Your task to perform on an android device: toggle data saver in the chrome app Image 0: 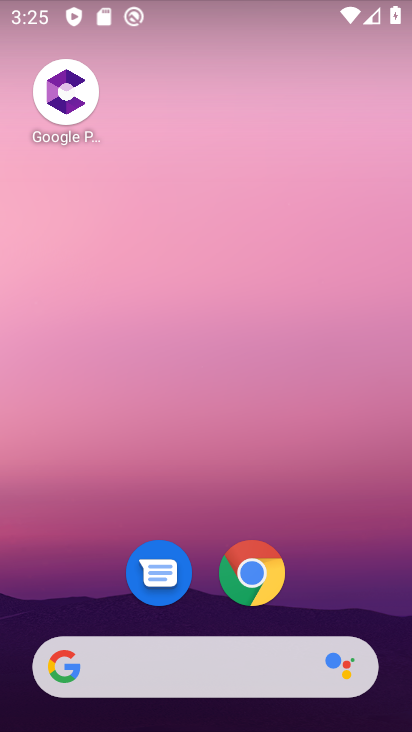
Step 0: drag from (87, 626) to (242, 148)
Your task to perform on an android device: toggle data saver in the chrome app Image 1: 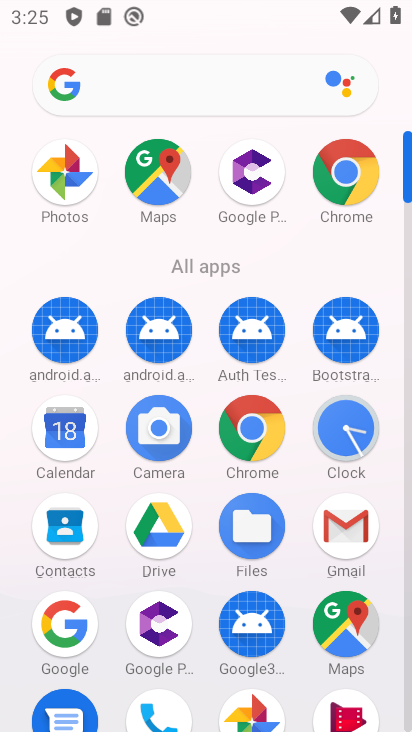
Step 1: click (254, 432)
Your task to perform on an android device: toggle data saver in the chrome app Image 2: 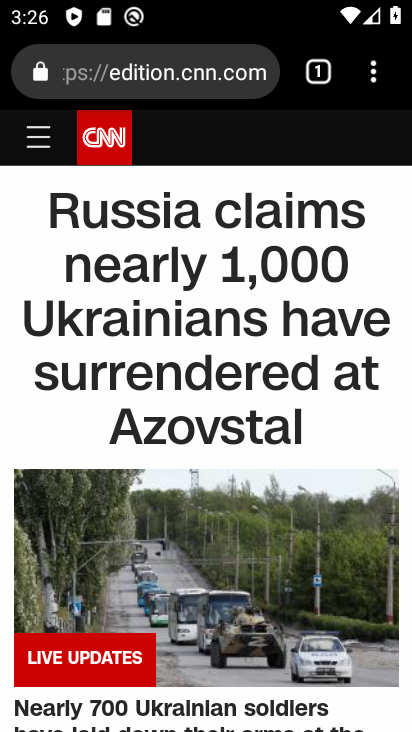
Step 2: drag from (386, 79) to (263, 585)
Your task to perform on an android device: toggle data saver in the chrome app Image 3: 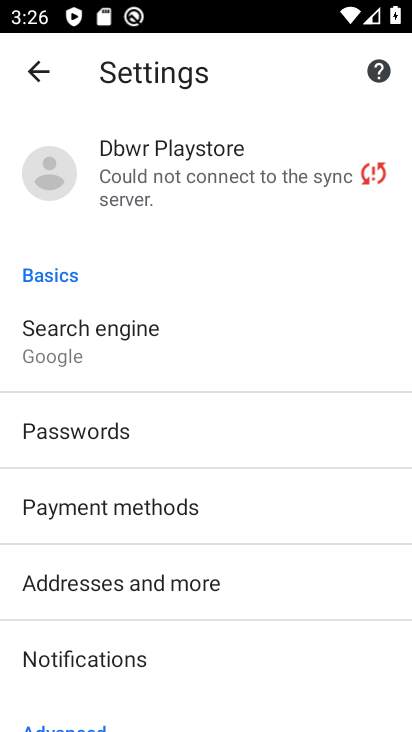
Step 3: drag from (104, 704) to (206, 283)
Your task to perform on an android device: toggle data saver in the chrome app Image 4: 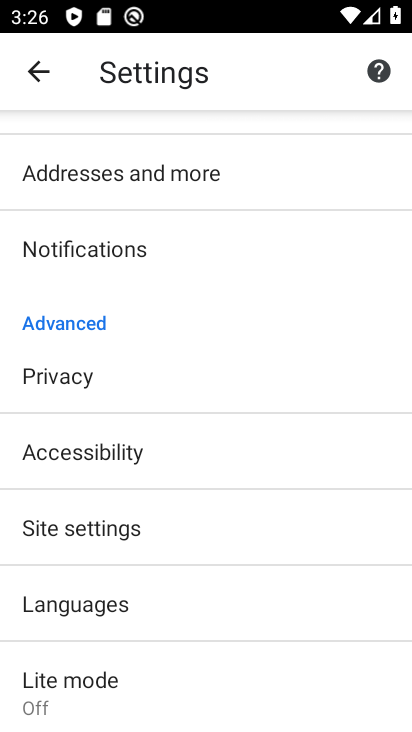
Step 4: drag from (163, 603) to (219, 460)
Your task to perform on an android device: toggle data saver in the chrome app Image 5: 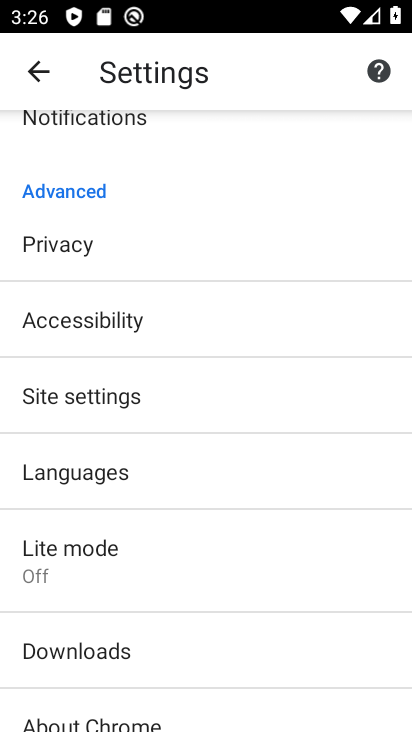
Step 5: click (177, 562)
Your task to perform on an android device: toggle data saver in the chrome app Image 6: 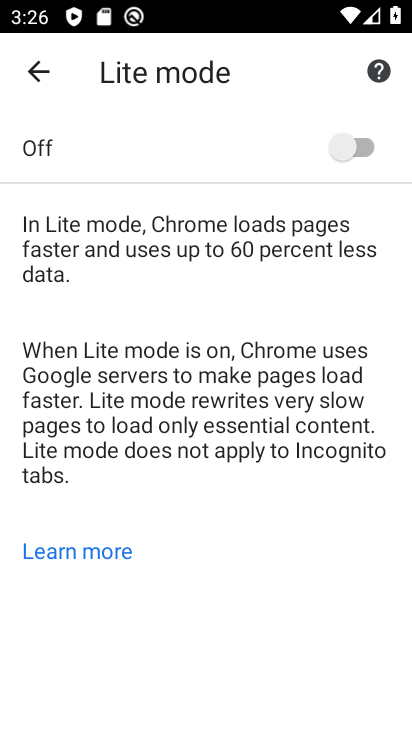
Step 6: click (394, 153)
Your task to perform on an android device: toggle data saver in the chrome app Image 7: 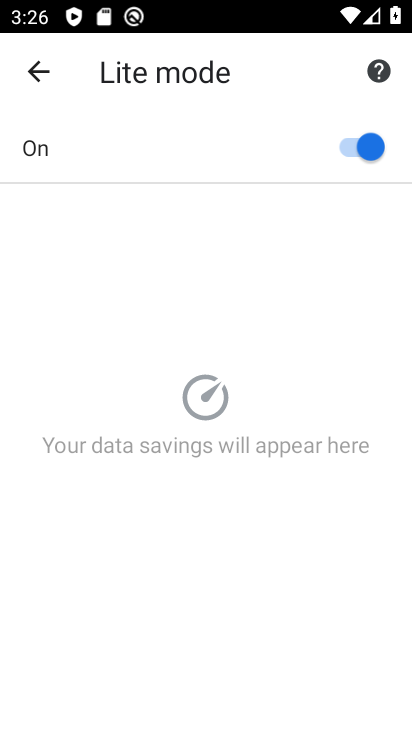
Step 7: task complete